Your task to perform on an android device: add a contact Image 0: 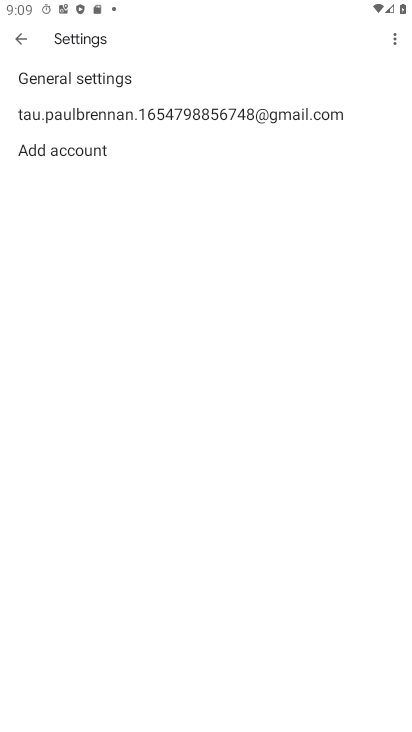
Step 0: press back button
Your task to perform on an android device: add a contact Image 1: 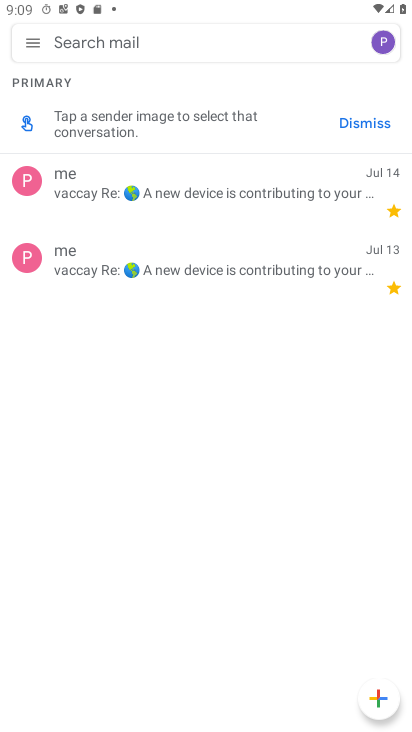
Step 1: press home button
Your task to perform on an android device: add a contact Image 2: 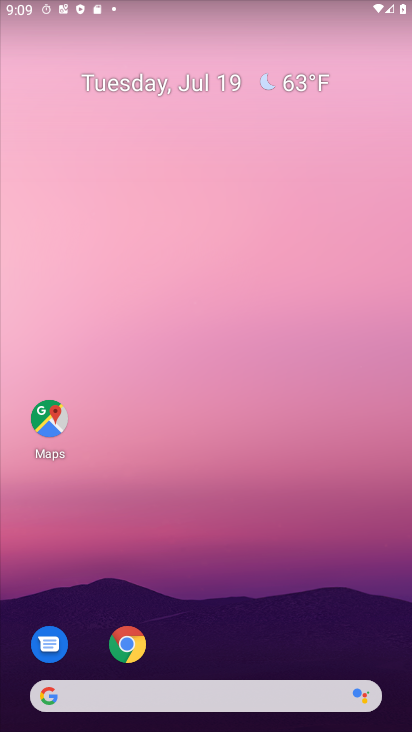
Step 2: drag from (209, 646) to (209, 135)
Your task to perform on an android device: add a contact Image 3: 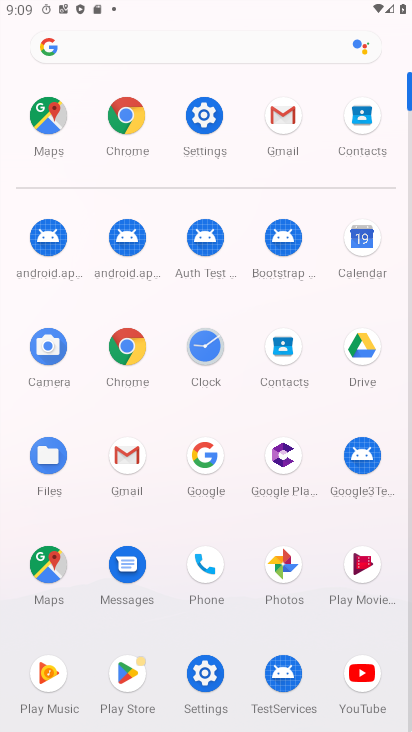
Step 3: click (274, 347)
Your task to perform on an android device: add a contact Image 4: 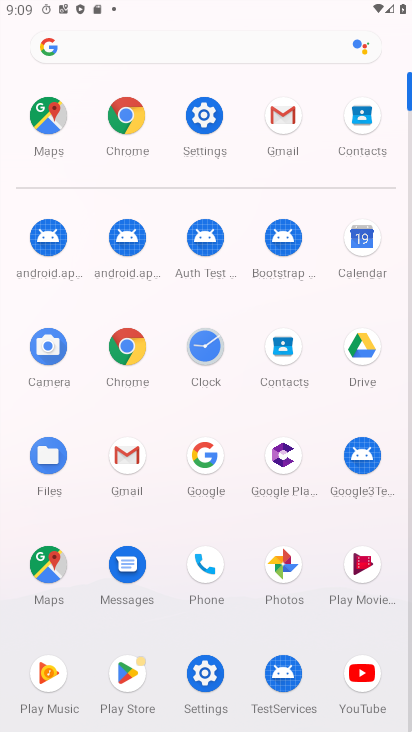
Step 4: click (276, 346)
Your task to perform on an android device: add a contact Image 5: 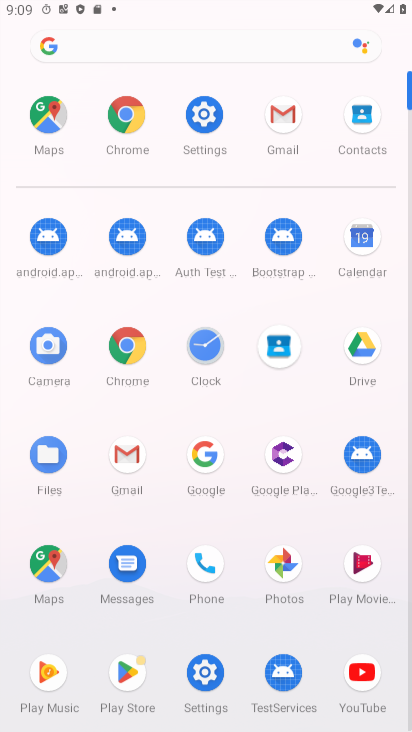
Step 5: click (276, 346)
Your task to perform on an android device: add a contact Image 6: 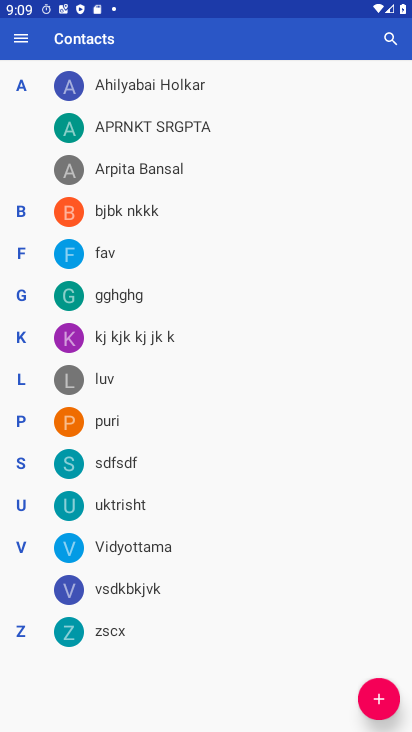
Step 6: click (368, 693)
Your task to perform on an android device: add a contact Image 7: 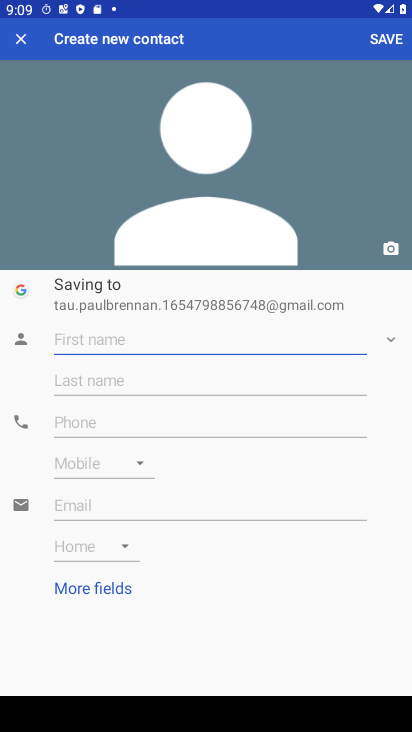
Step 7: click (100, 343)
Your task to perform on an android device: add a contact Image 8: 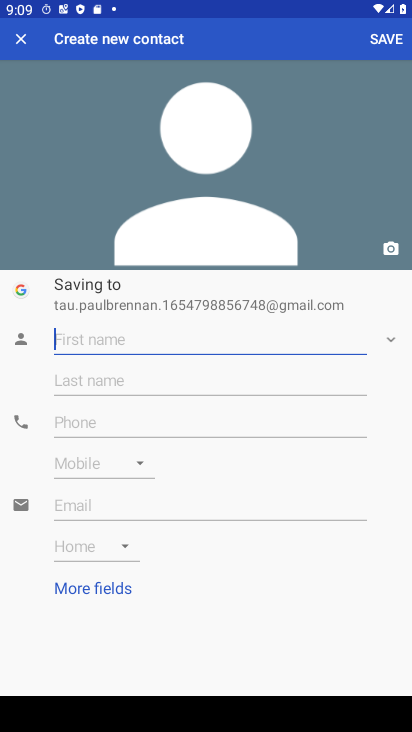
Step 8: type "sakbxhjsabc h"
Your task to perform on an android device: add a contact Image 9: 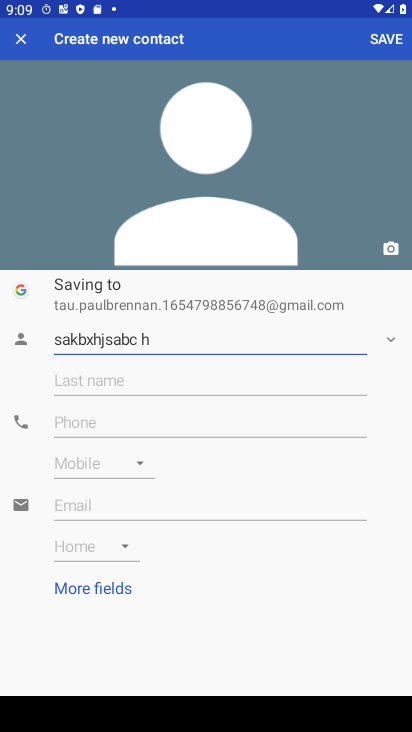
Step 9: click (77, 432)
Your task to perform on an android device: add a contact Image 10: 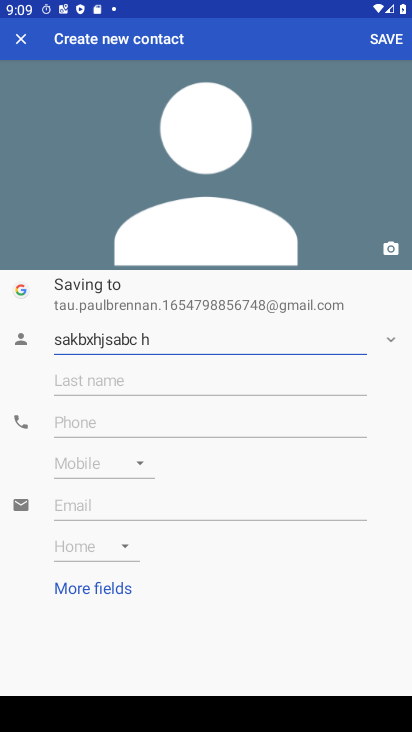
Step 10: click (77, 432)
Your task to perform on an android device: add a contact Image 11: 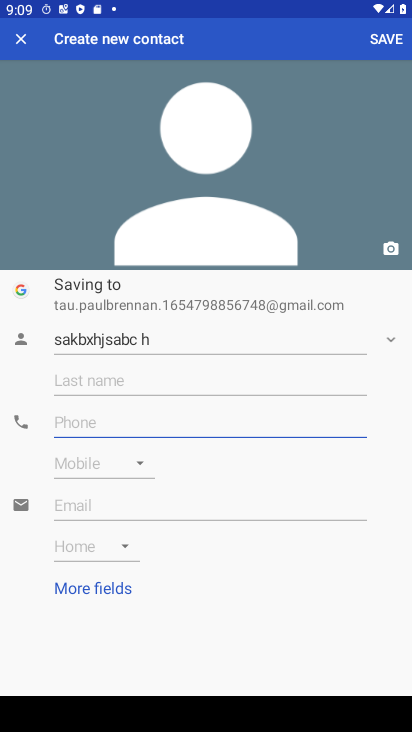
Step 11: click (77, 432)
Your task to perform on an android device: add a contact Image 12: 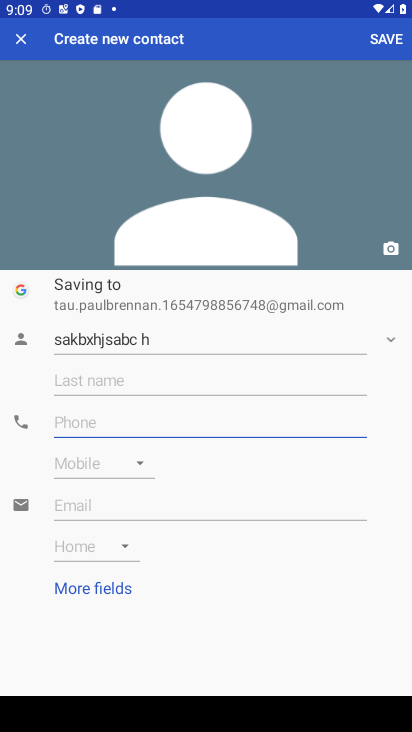
Step 12: type "64344372387892789"
Your task to perform on an android device: add a contact Image 13: 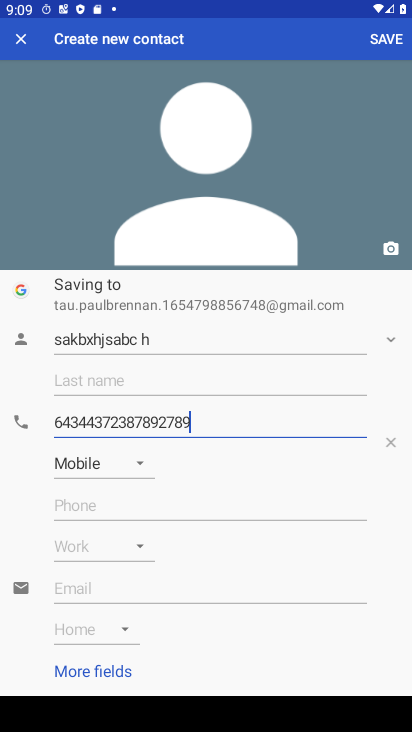
Step 13: click (385, 42)
Your task to perform on an android device: add a contact Image 14: 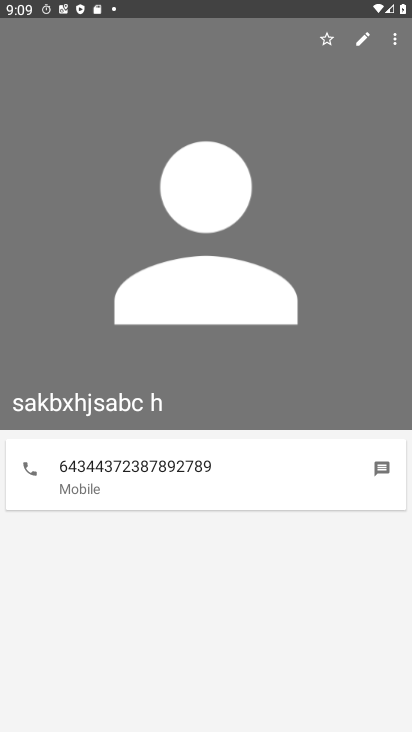
Step 14: task complete